Your task to perform on an android device: Search for the new Apple Watch on Best Buy Image 0: 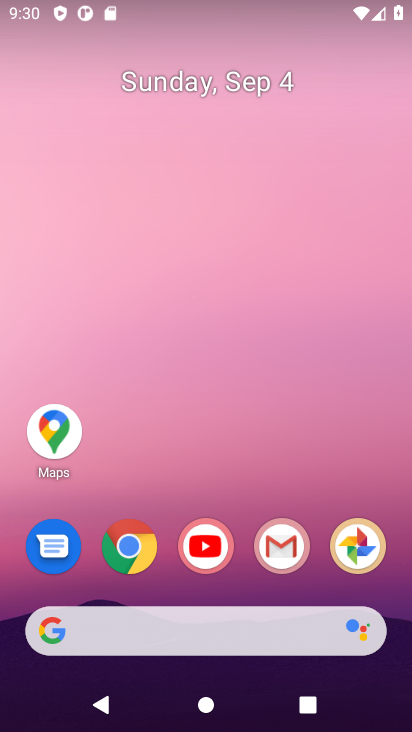
Step 0: click (128, 554)
Your task to perform on an android device: Search for the new Apple Watch on Best Buy Image 1: 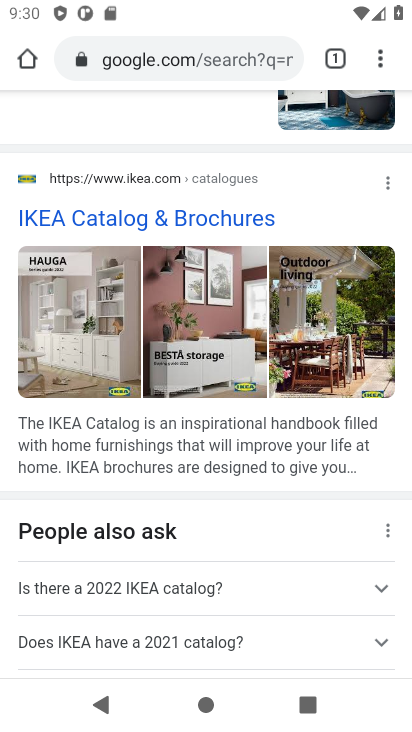
Step 1: click (144, 75)
Your task to perform on an android device: Search for the new Apple Watch on Best Buy Image 2: 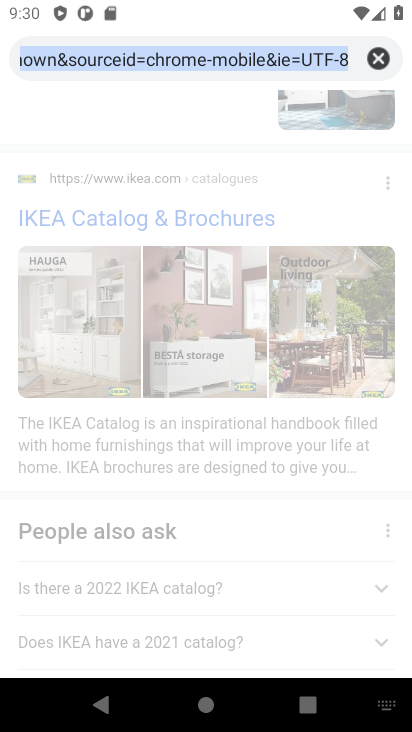
Step 2: click (385, 57)
Your task to perform on an android device: Search for the new Apple Watch on Best Buy Image 3: 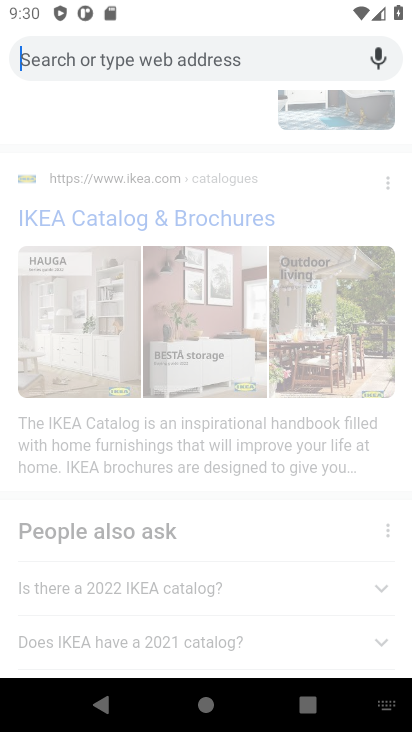
Step 3: type "best buy"
Your task to perform on an android device: Search for the new Apple Watch on Best Buy Image 4: 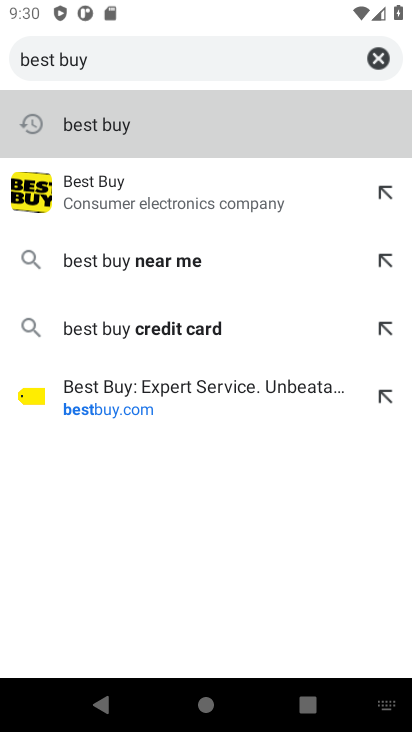
Step 4: click (93, 139)
Your task to perform on an android device: Search for the new Apple Watch on Best Buy Image 5: 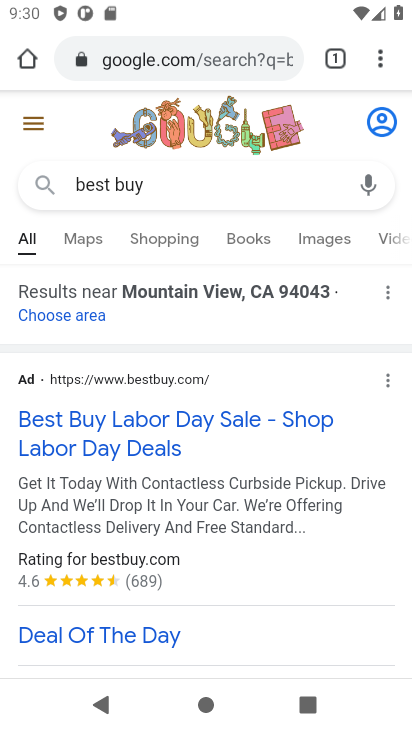
Step 5: drag from (205, 199) to (213, 72)
Your task to perform on an android device: Search for the new Apple Watch on Best Buy Image 6: 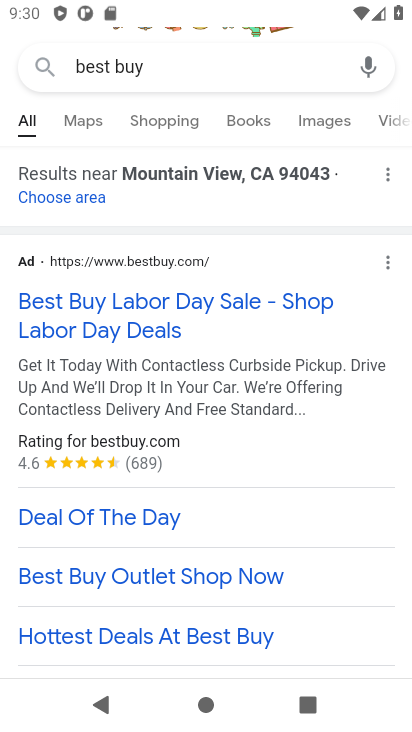
Step 6: drag from (268, 435) to (271, 93)
Your task to perform on an android device: Search for the new Apple Watch on Best Buy Image 7: 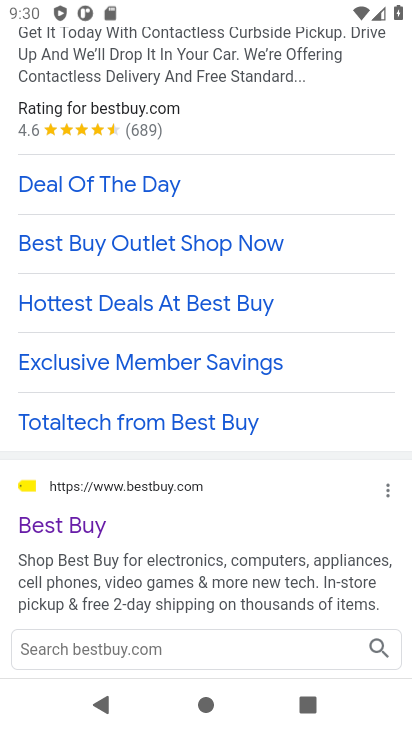
Step 7: click (79, 534)
Your task to perform on an android device: Search for the new Apple Watch on Best Buy Image 8: 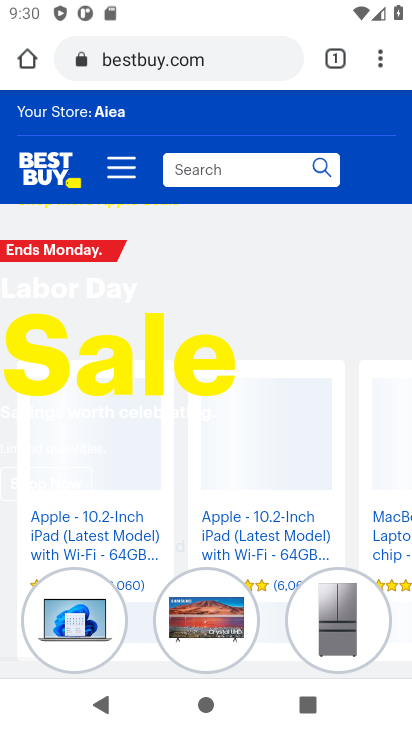
Step 8: click (208, 166)
Your task to perform on an android device: Search for the new Apple Watch on Best Buy Image 9: 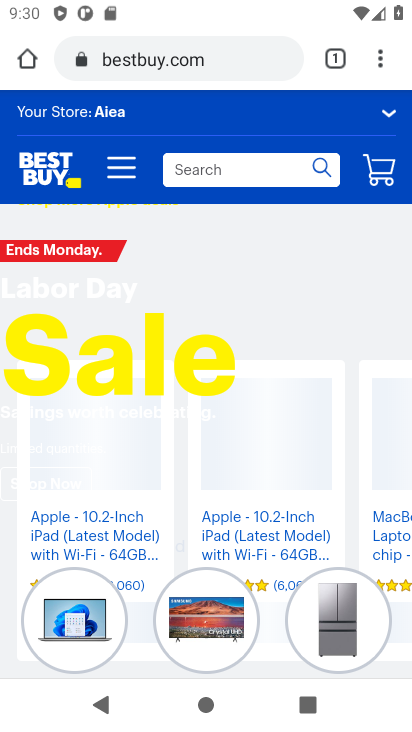
Step 9: type "new Apple Watch"
Your task to perform on an android device: Search for the new Apple Watch on Best Buy Image 10: 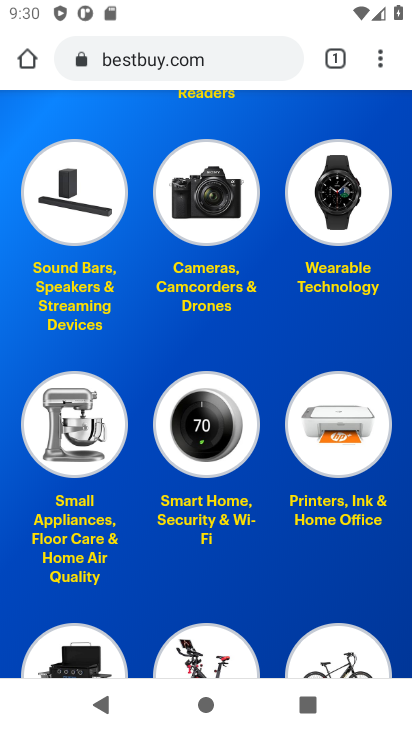
Step 10: drag from (300, 157) to (234, 726)
Your task to perform on an android device: Search for the new Apple Watch on Best Buy Image 11: 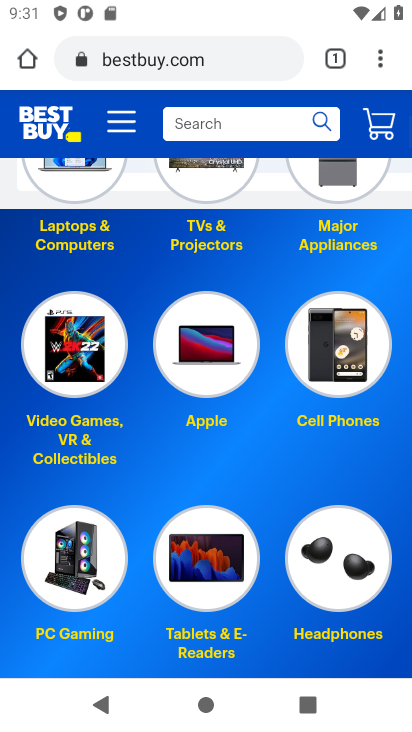
Step 11: click (203, 134)
Your task to perform on an android device: Search for the new Apple Watch on Best Buy Image 12: 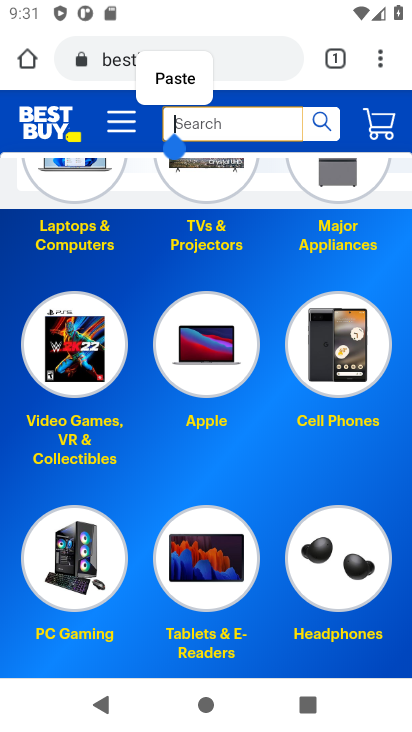
Step 12: type "new Apple Watch"
Your task to perform on an android device: Search for the new Apple Watch on Best Buy Image 13: 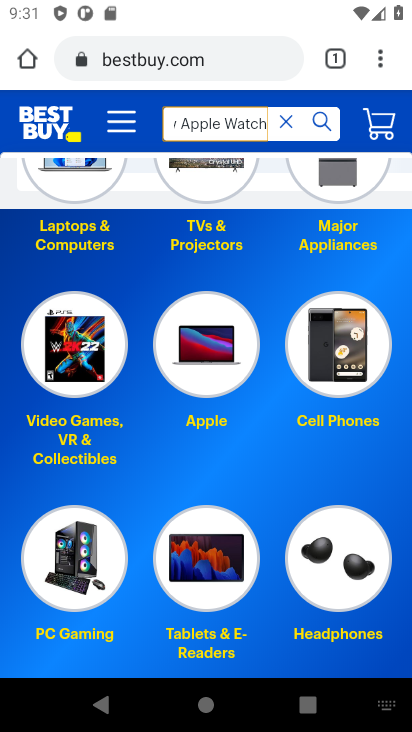
Step 13: click (323, 119)
Your task to perform on an android device: Search for the new Apple Watch on Best Buy Image 14: 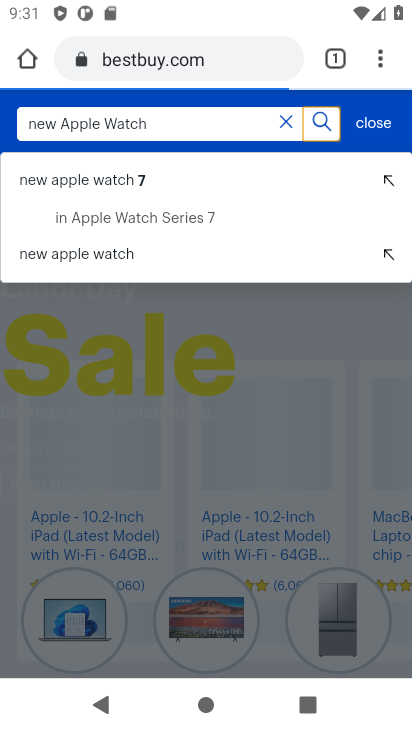
Step 14: click (313, 121)
Your task to perform on an android device: Search for the new Apple Watch on Best Buy Image 15: 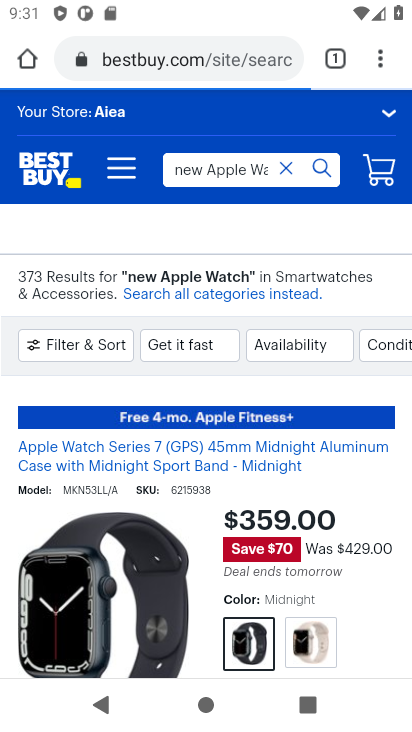
Step 15: task complete